Your task to perform on an android device: Google the capital of Paraguay Image 0: 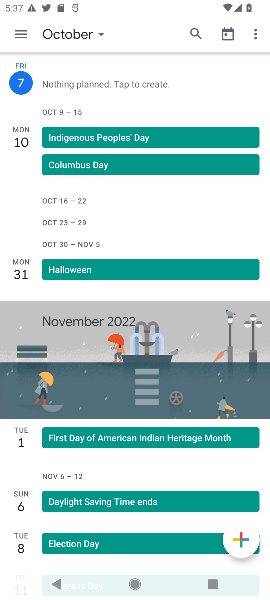
Step 0: press home button
Your task to perform on an android device: Google the capital of Paraguay Image 1: 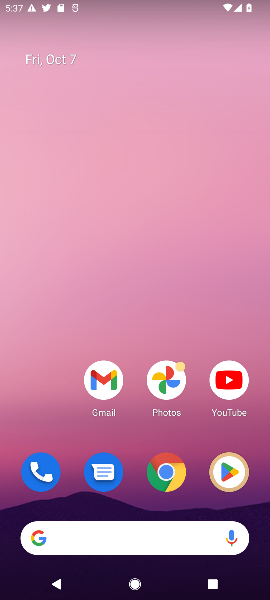
Step 1: click (171, 475)
Your task to perform on an android device: Google the capital of Paraguay Image 2: 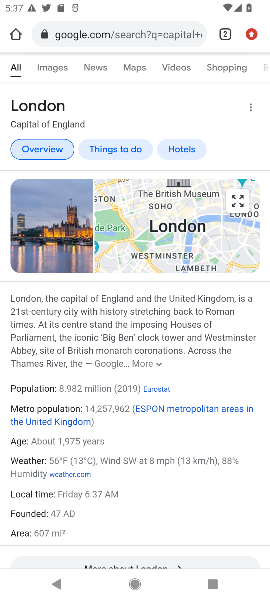
Step 2: click (165, 33)
Your task to perform on an android device: Google the capital of Paraguay Image 3: 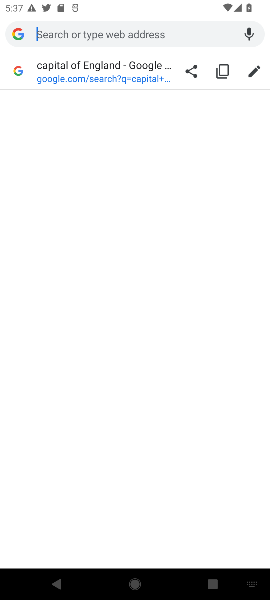
Step 3: type "capital of Paraguay"
Your task to perform on an android device: Google the capital of Paraguay Image 4: 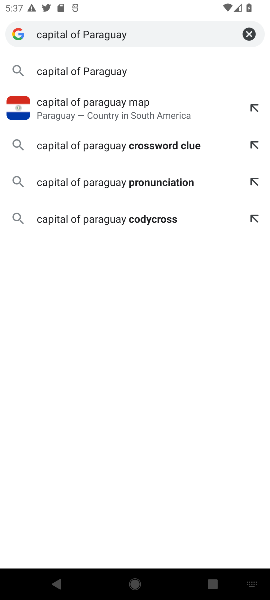
Step 4: click (110, 78)
Your task to perform on an android device: Google the capital of Paraguay Image 5: 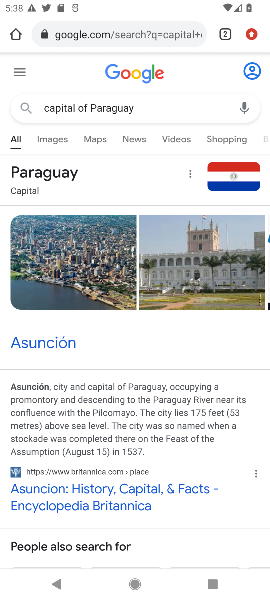
Step 5: click (176, 350)
Your task to perform on an android device: Google the capital of Paraguay Image 6: 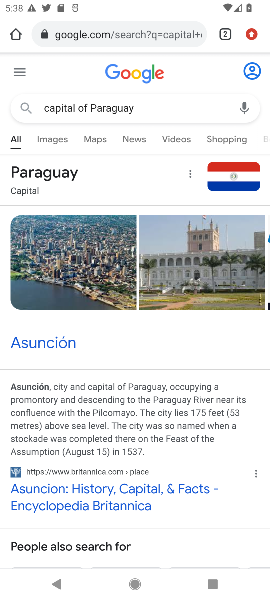
Step 6: task complete